Your task to perform on an android device: Open the calendar and show me this week's events? Image 0: 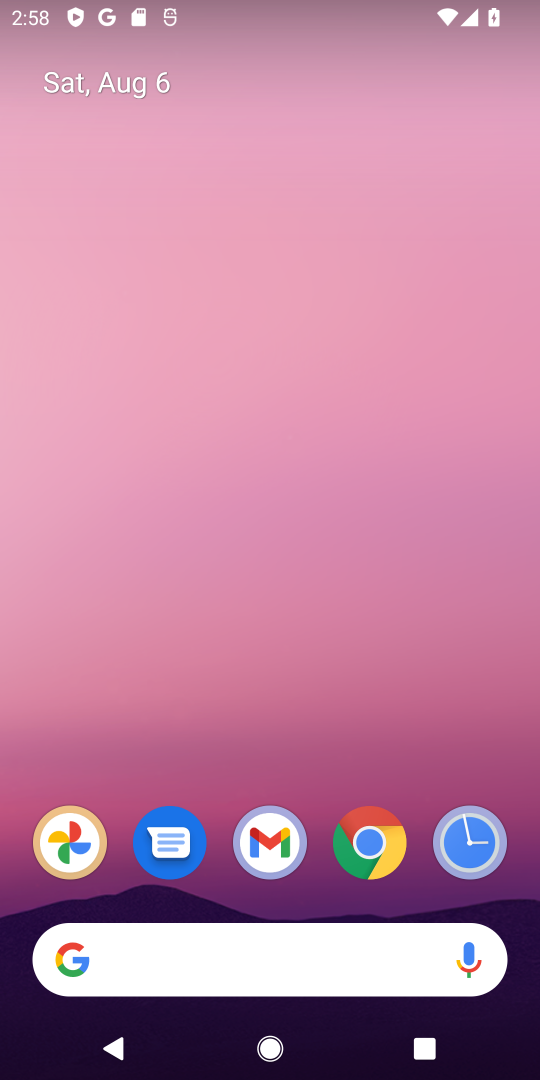
Step 0: drag from (522, 1052) to (407, 192)
Your task to perform on an android device: Open the calendar and show me this week's events? Image 1: 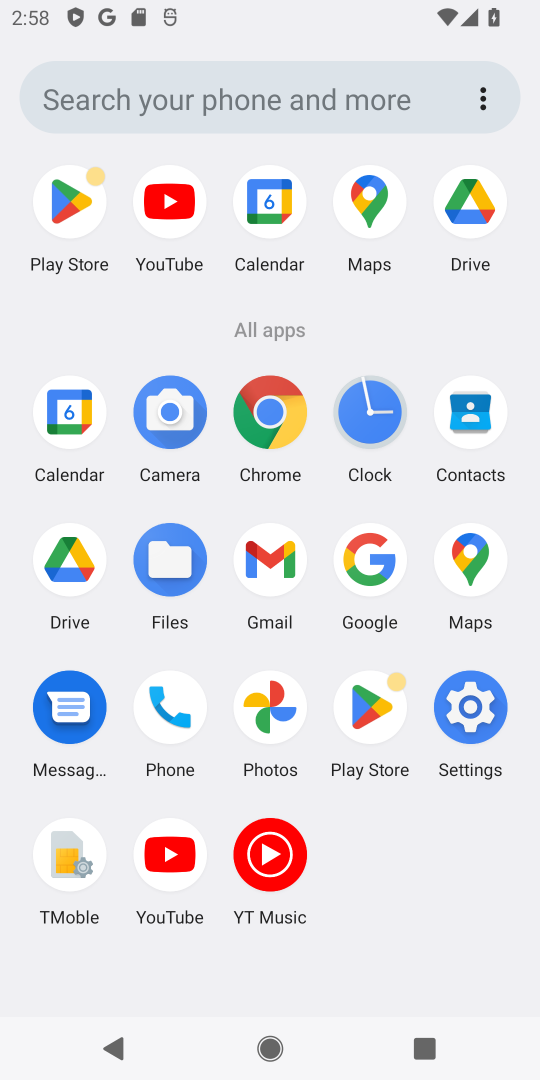
Step 1: click (72, 410)
Your task to perform on an android device: Open the calendar and show me this week's events? Image 2: 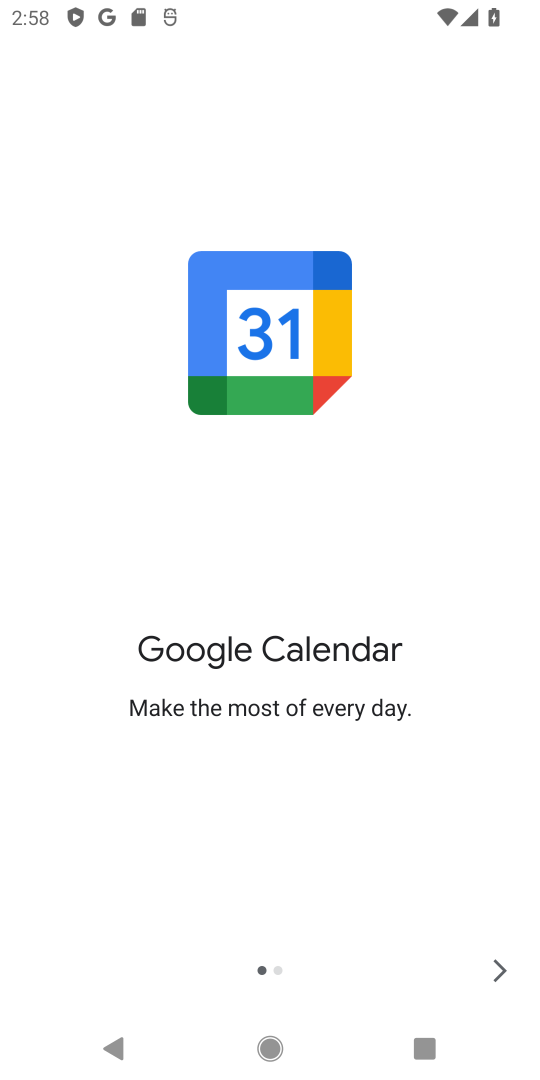
Step 2: click (498, 974)
Your task to perform on an android device: Open the calendar and show me this week's events? Image 3: 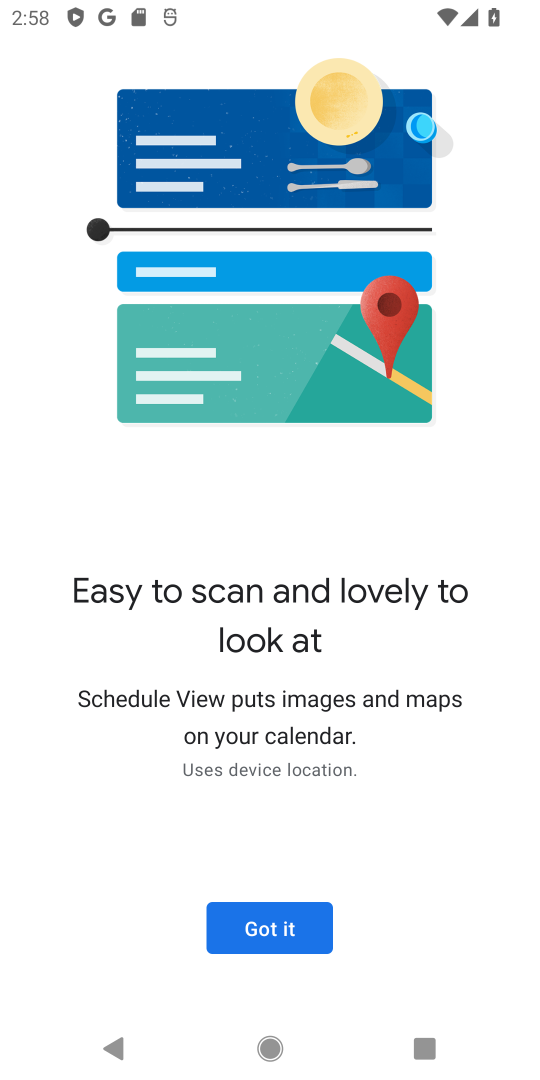
Step 3: click (498, 973)
Your task to perform on an android device: Open the calendar and show me this week's events? Image 4: 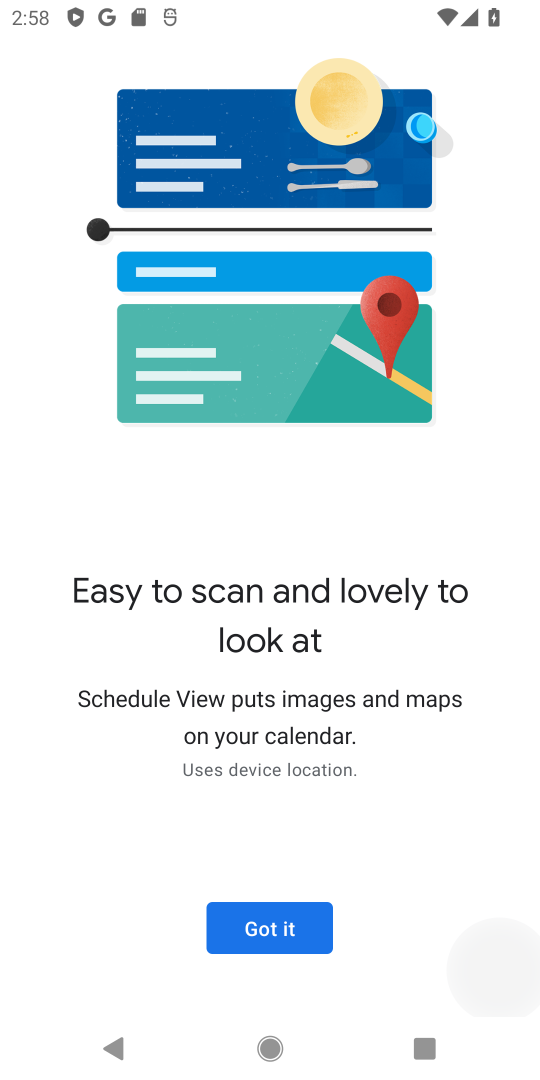
Step 4: click (318, 932)
Your task to perform on an android device: Open the calendar and show me this week's events? Image 5: 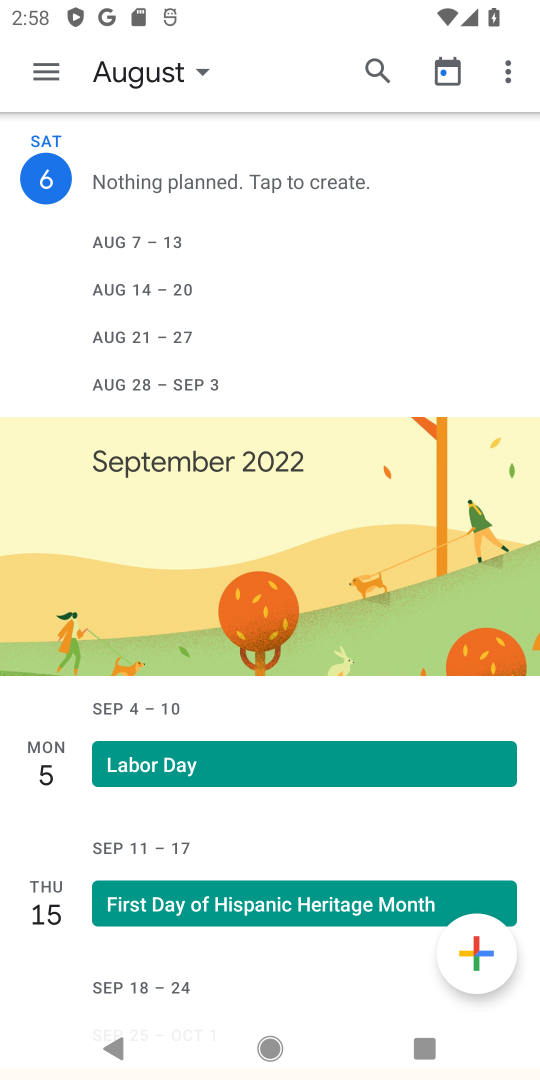
Step 5: click (49, 66)
Your task to perform on an android device: Open the calendar and show me this week's events? Image 6: 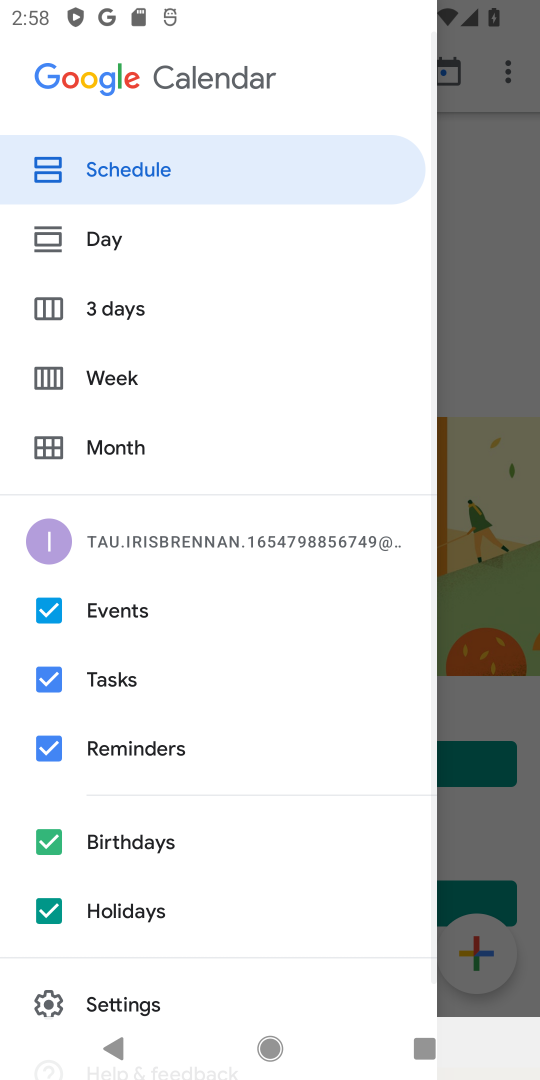
Step 6: click (105, 373)
Your task to perform on an android device: Open the calendar and show me this week's events? Image 7: 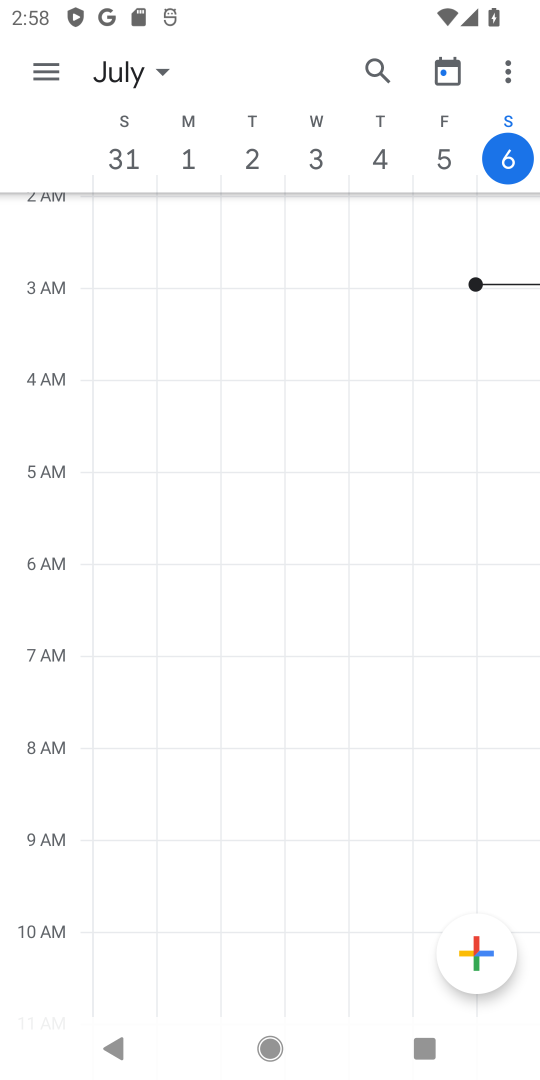
Step 7: click (49, 62)
Your task to perform on an android device: Open the calendar and show me this week's events? Image 8: 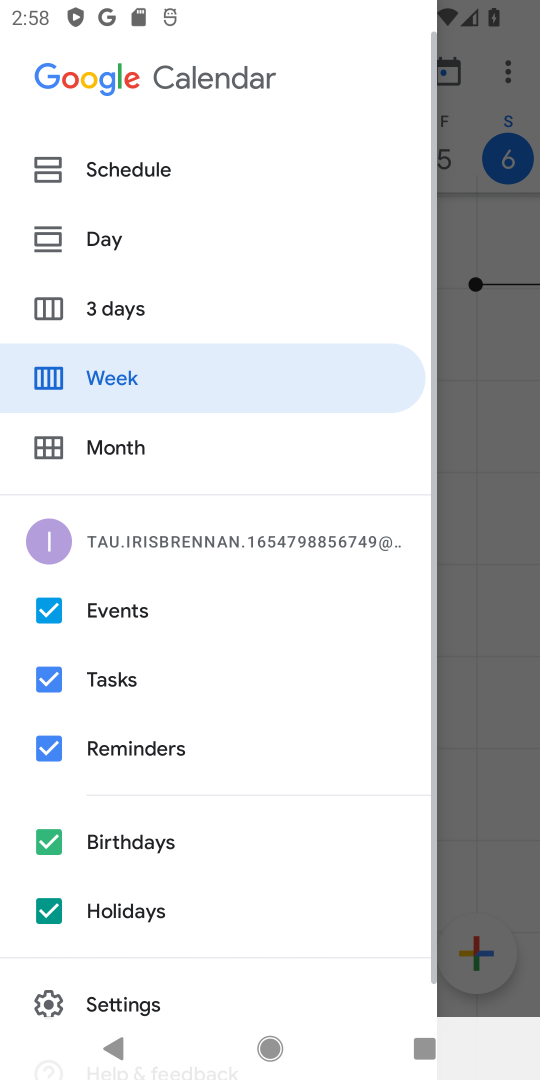
Step 8: click (124, 167)
Your task to perform on an android device: Open the calendar and show me this week's events? Image 9: 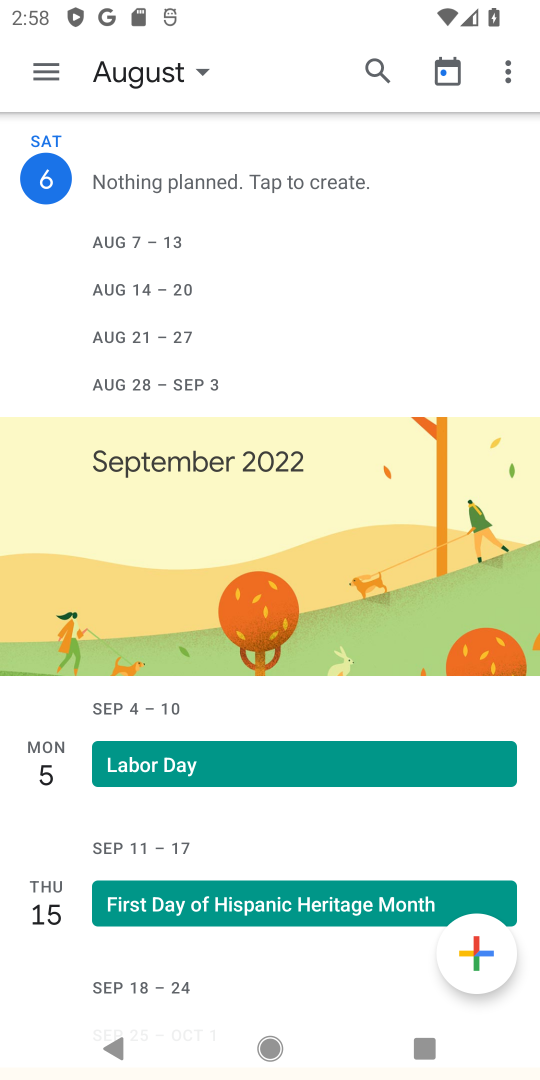
Step 9: task complete